Your task to perform on an android device: turn on wifi Image 0: 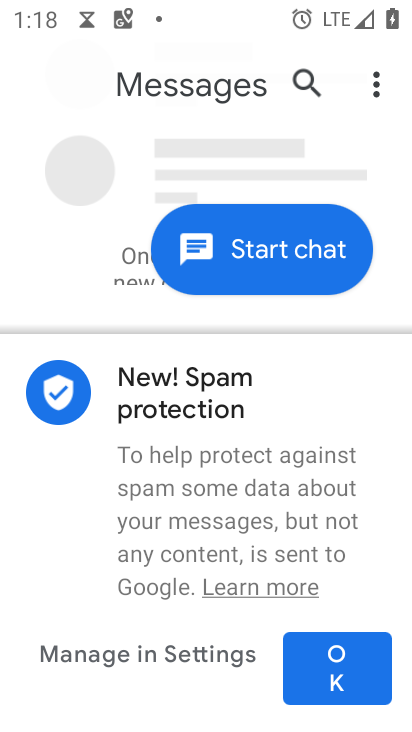
Step 0: press home button
Your task to perform on an android device: turn on wifi Image 1: 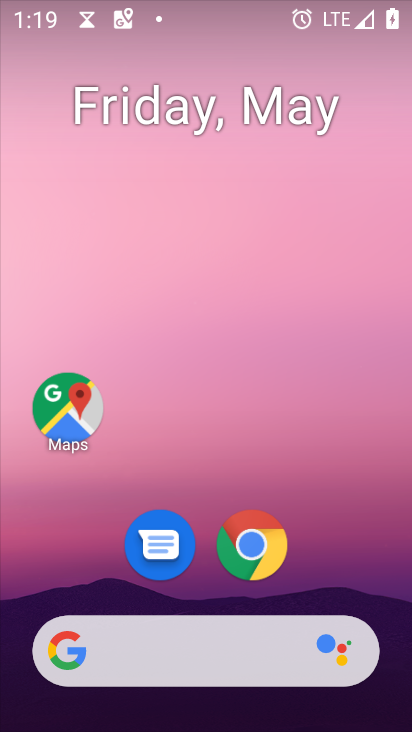
Step 1: drag from (330, 566) to (311, 215)
Your task to perform on an android device: turn on wifi Image 2: 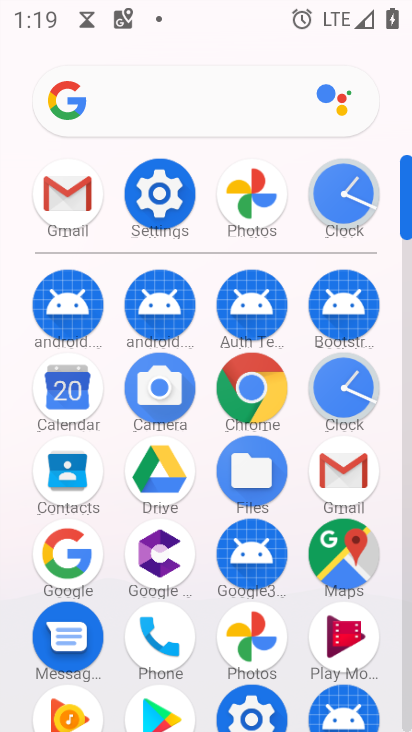
Step 2: click (156, 191)
Your task to perform on an android device: turn on wifi Image 3: 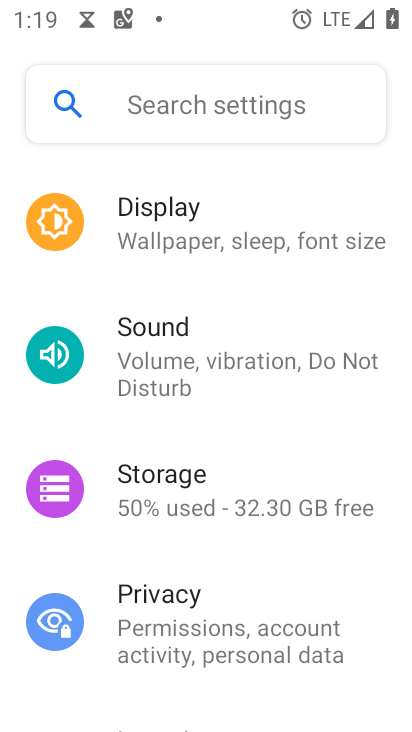
Step 3: drag from (236, 268) to (212, 556)
Your task to perform on an android device: turn on wifi Image 4: 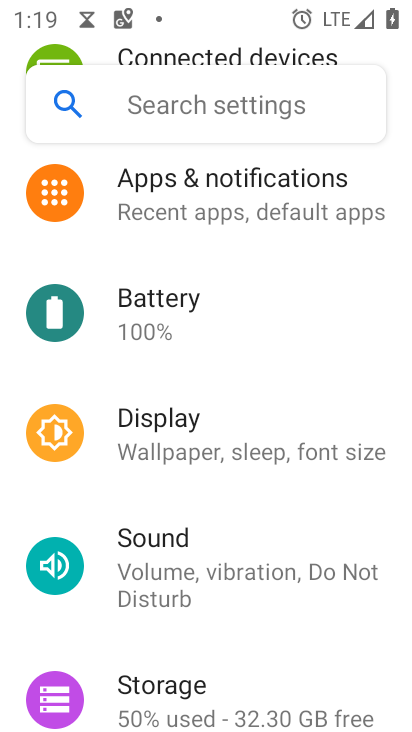
Step 4: drag from (283, 294) to (252, 618)
Your task to perform on an android device: turn on wifi Image 5: 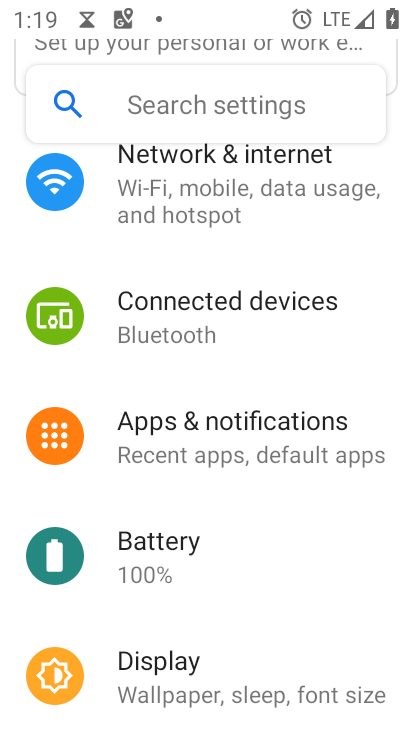
Step 5: click (242, 203)
Your task to perform on an android device: turn on wifi Image 6: 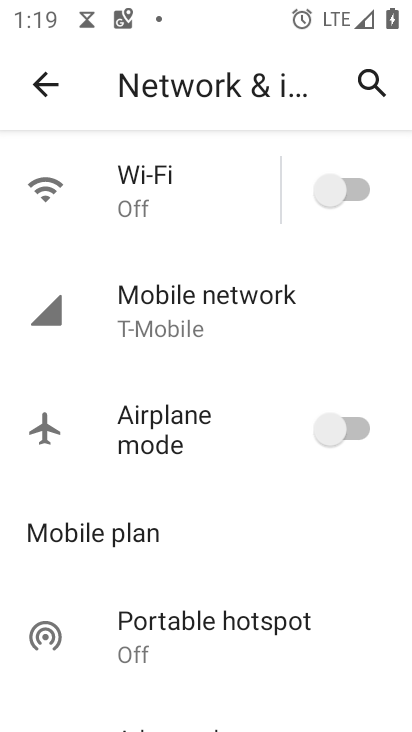
Step 6: click (356, 190)
Your task to perform on an android device: turn on wifi Image 7: 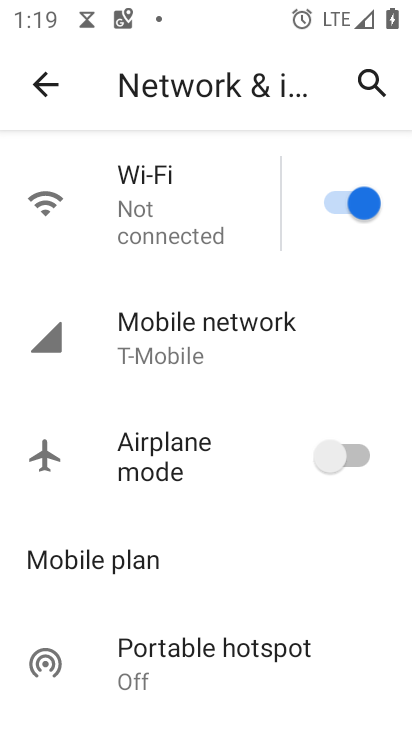
Step 7: task complete